Your task to perform on an android device: turn on javascript in the chrome app Image 0: 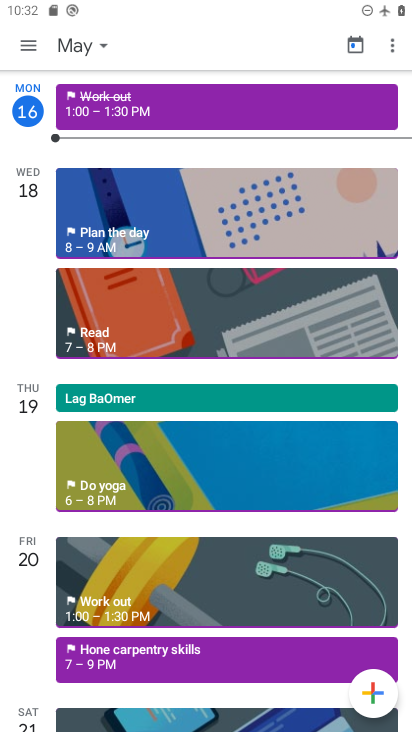
Step 0: press home button
Your task to perform on an android device: turn on javascript in the chrome app Image 1: 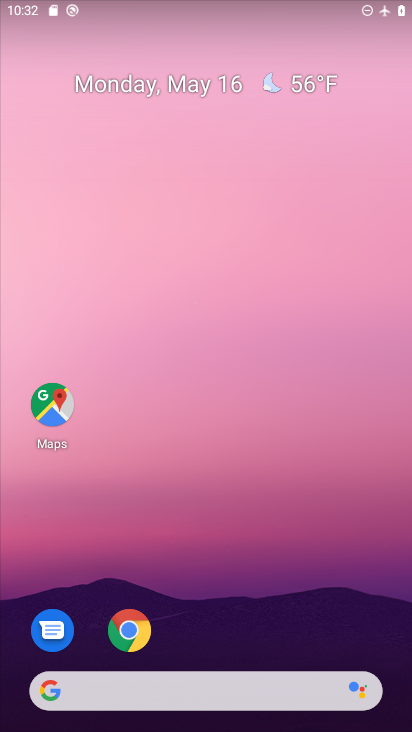
Step 1: click (135, 630)
Your task to perform on an android device: turn on javascript in the chrome app Image 2: 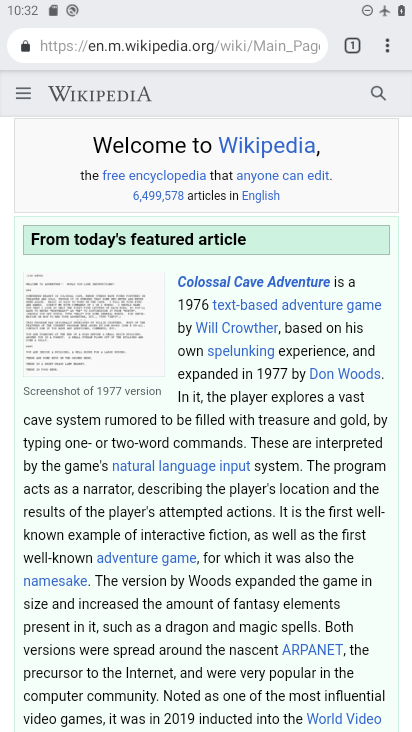
Step 2: click (388, 52)
Your task to perform on an android device: turn on javascript in the chrome app Image 3: 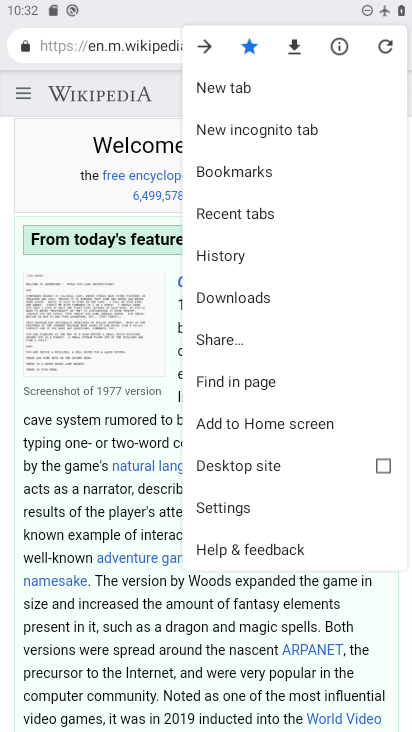
Step 3: click (231, 498)
Your task to perform on an android device: turn on javascript in the chrome app Image 4: 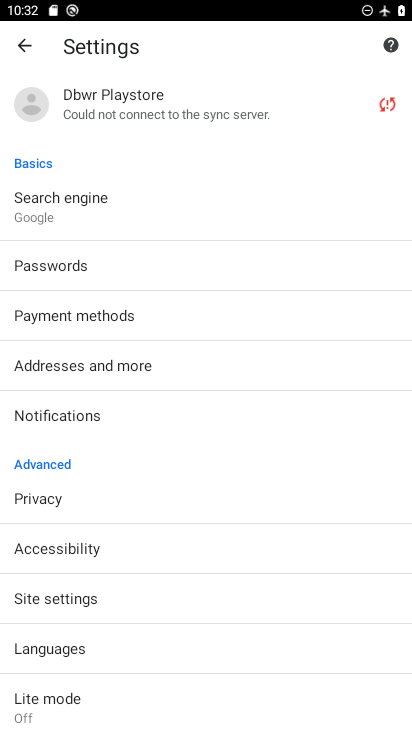
Step 4: click (210, 594)
Your task to perform on an android device: turn on javascript in the chrome app Image 5: 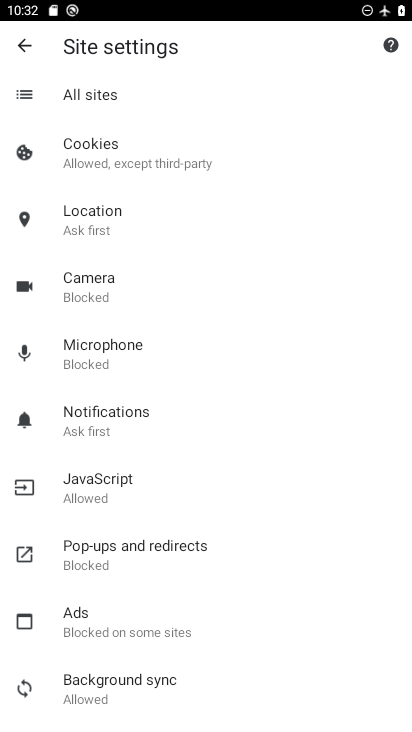
Step 5: click (213, 485)
Your task to perform on an android device: turn on javascript in the chrome app Image 6: 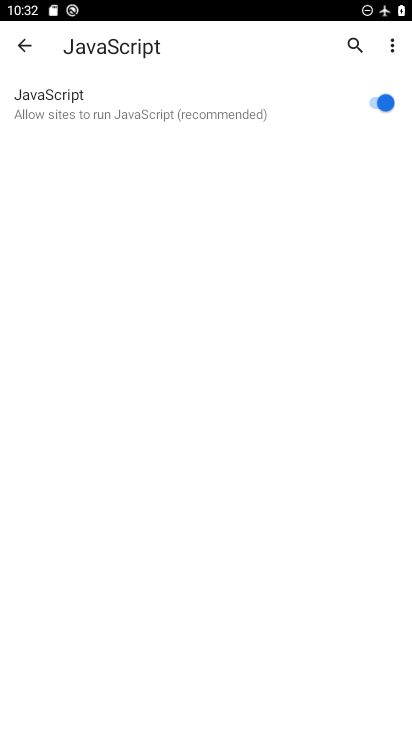
Step 6: task complete